Your task to perform on an android device: Go to sound settings Image 0: 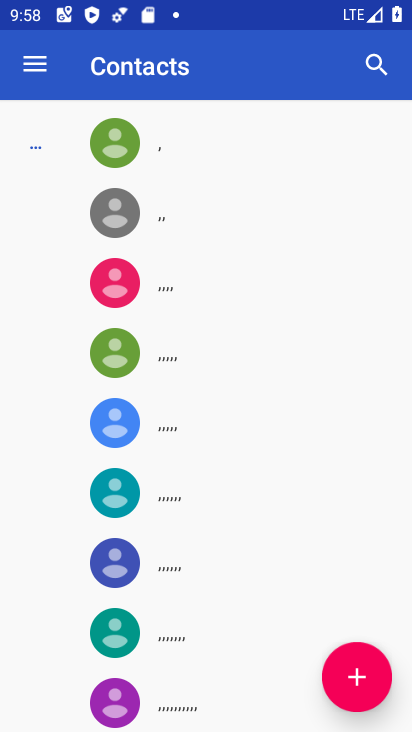
Step 0: press home button
Your task to perform on an android device: Go to sound settings Image 1: 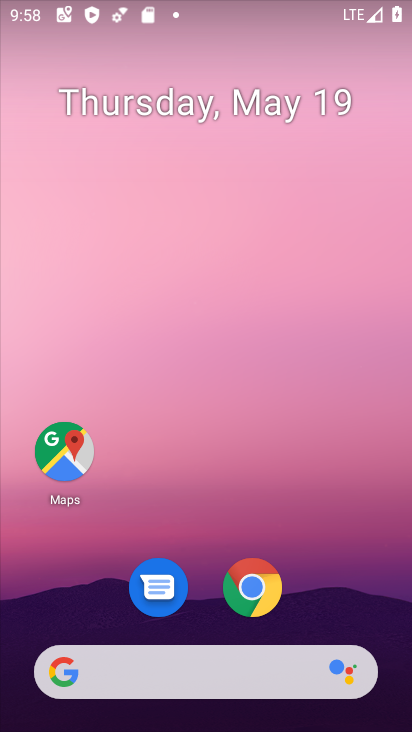
Step 1: drag from (193, 621) to (219, 100)
Your task to perform on an android device: Go to sound settings Image 2: 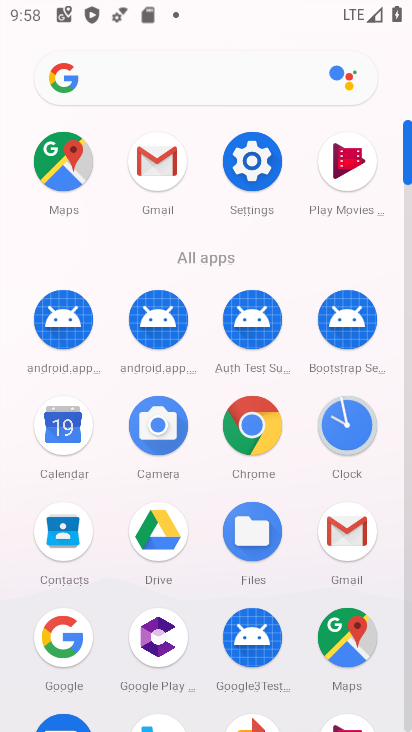
Step 2: click (250, 148)
Your task to perform on an android device: Go to sound settings Image 3: 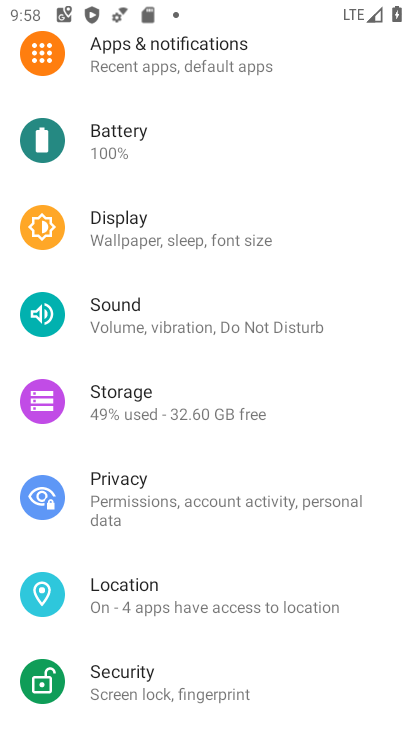
Step 3: click (187, 333)
Your task to perform on an android device: Go to sound settings Image 4: 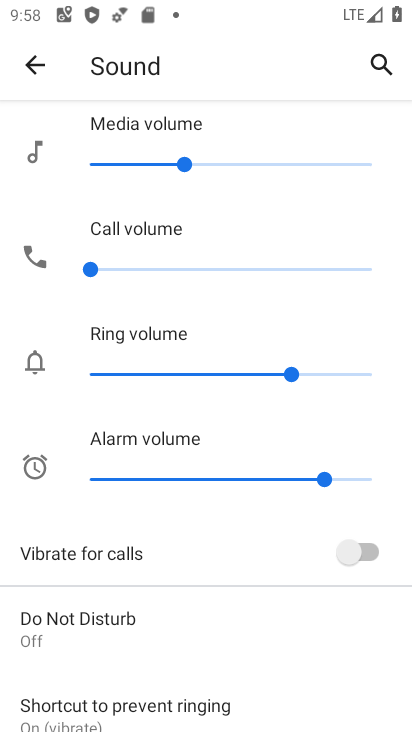
Step 4: task complete